Your task to perform on an android device: open app "PlayWell" (install if not already installed), go to login, and select forgot password Image 0: 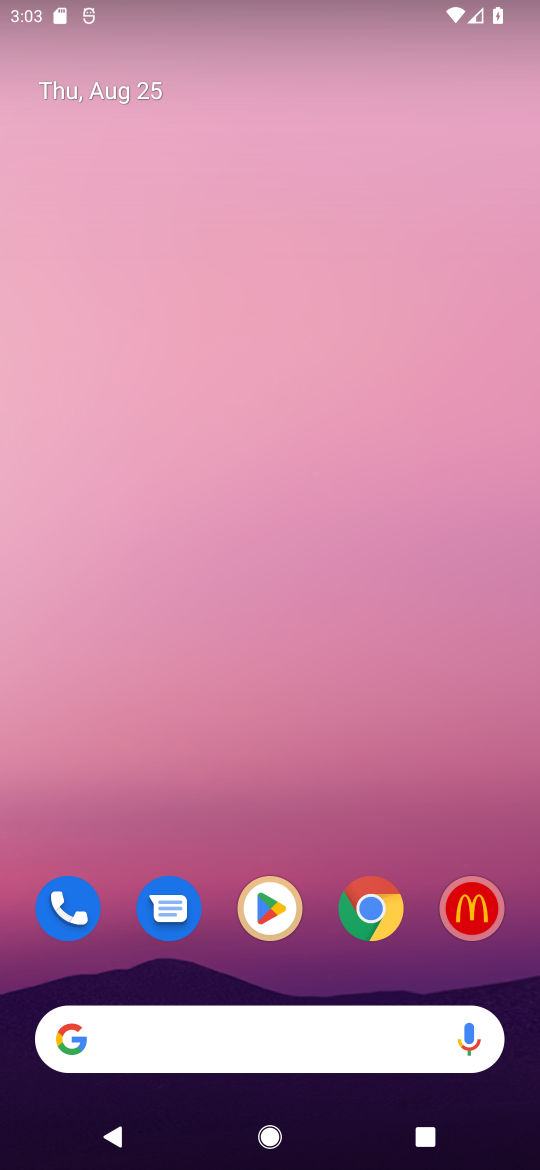
Step 0: click (260, 891)
Your task to perform on an android device: open app "PlayWell" (install if not already installed), go to login, and select forgot password Image 1: 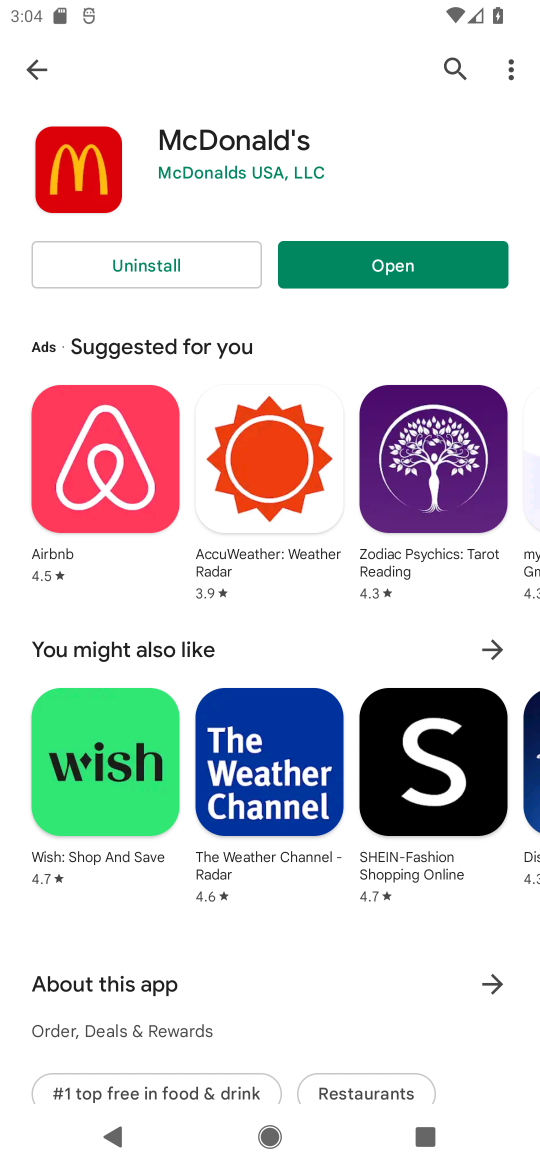
Step 1: click (457, 58)
Your task to perform on an android device: open app "PlayWell" (install if not already installed), go to login, and select forgot password Image 2: 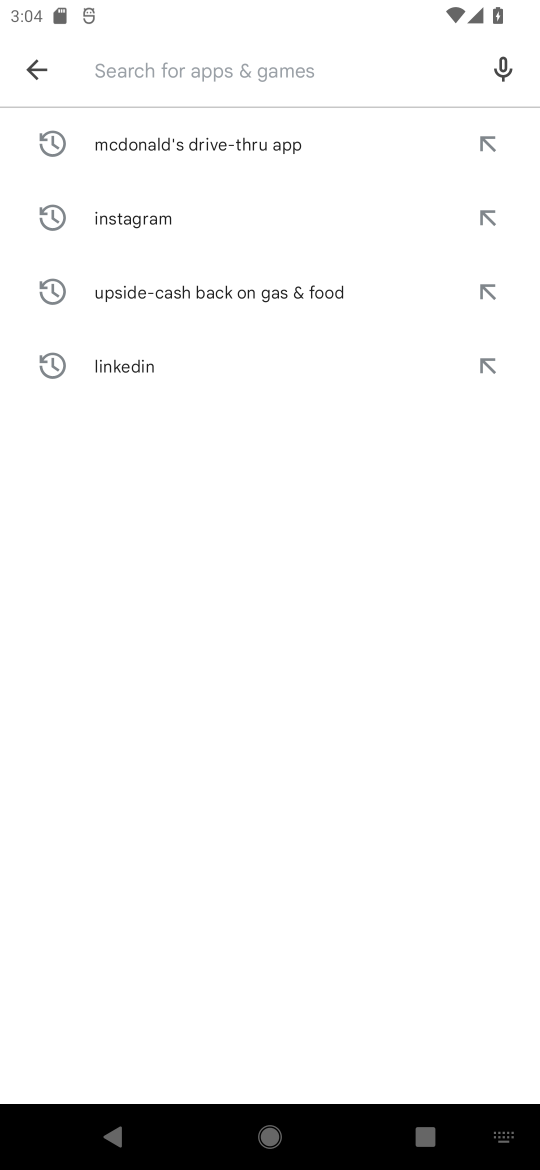
Step 2: type "PlayWell"
Your task to perform on an android device: open app "PlayWell" (install if not already installed), go to login, and select forgot password Image 3: 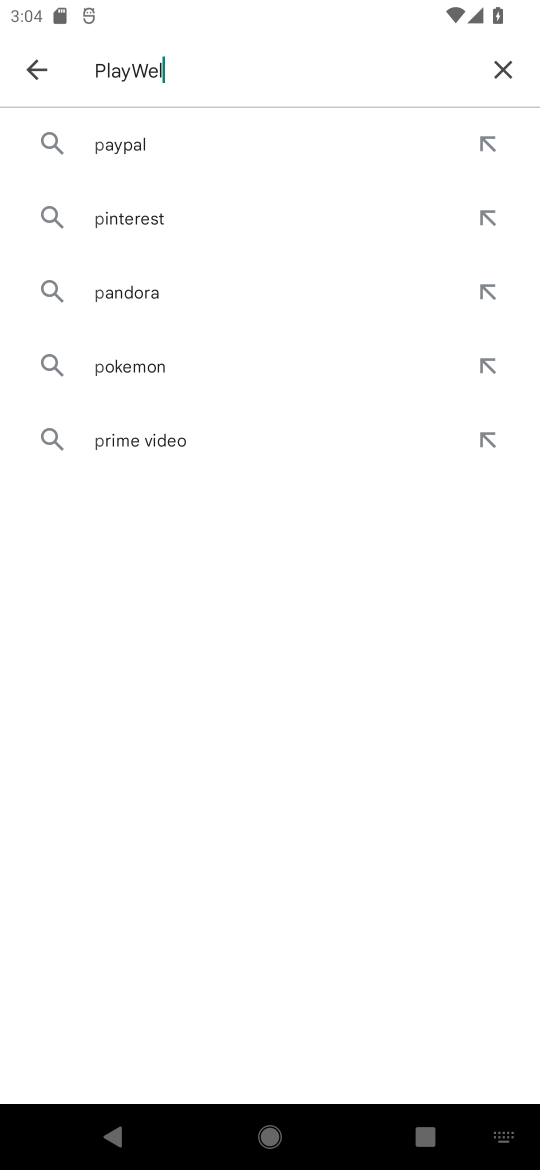
Step 3: type ""
Your task to perform on an android device: open app "PlayWell" (install if not already installed), go to login, and select forgot password Image 4: 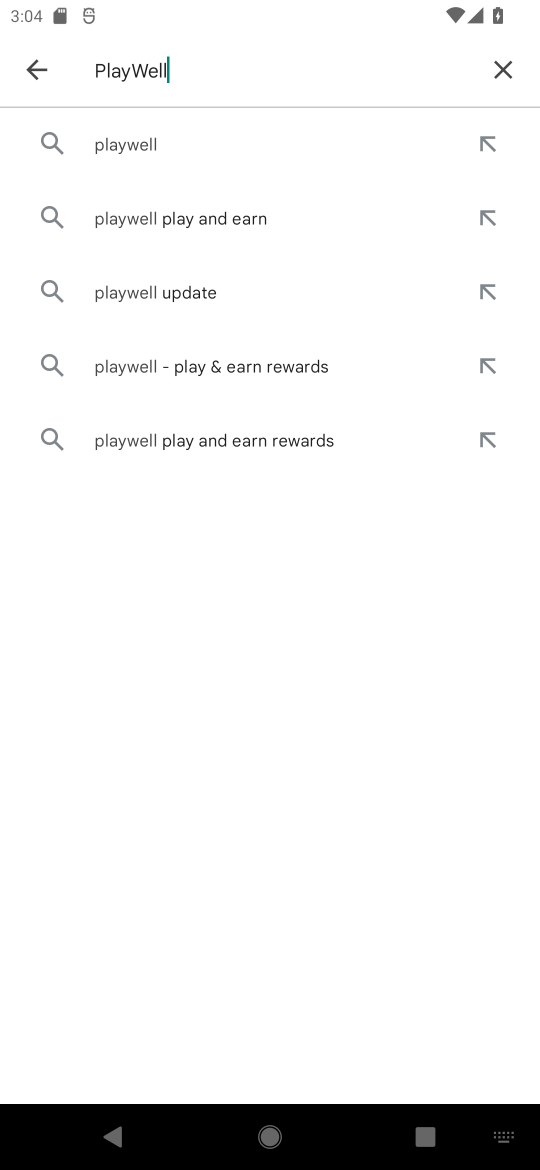
Step 4: click (196, 129)
Your task to perform on an android device: open app "PlayWell" (install if not already installed), go to login, and select forgot password Image 5: 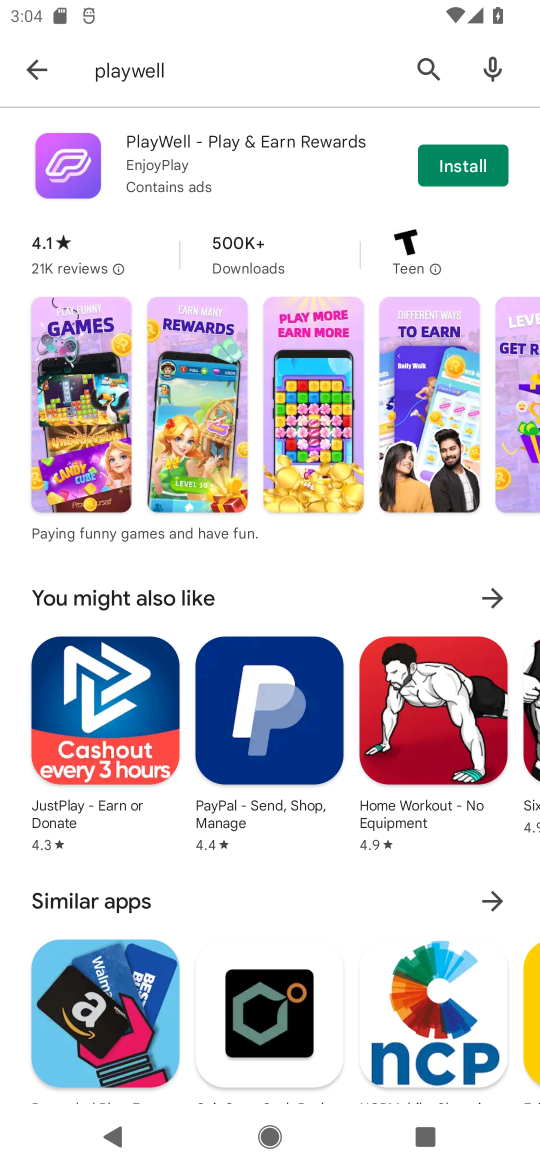
Step 5: click (472, 169)
Your task to perform on an android device: open app "PlayWell" (install if not already installed), go to login, and select forgot password Image 6: 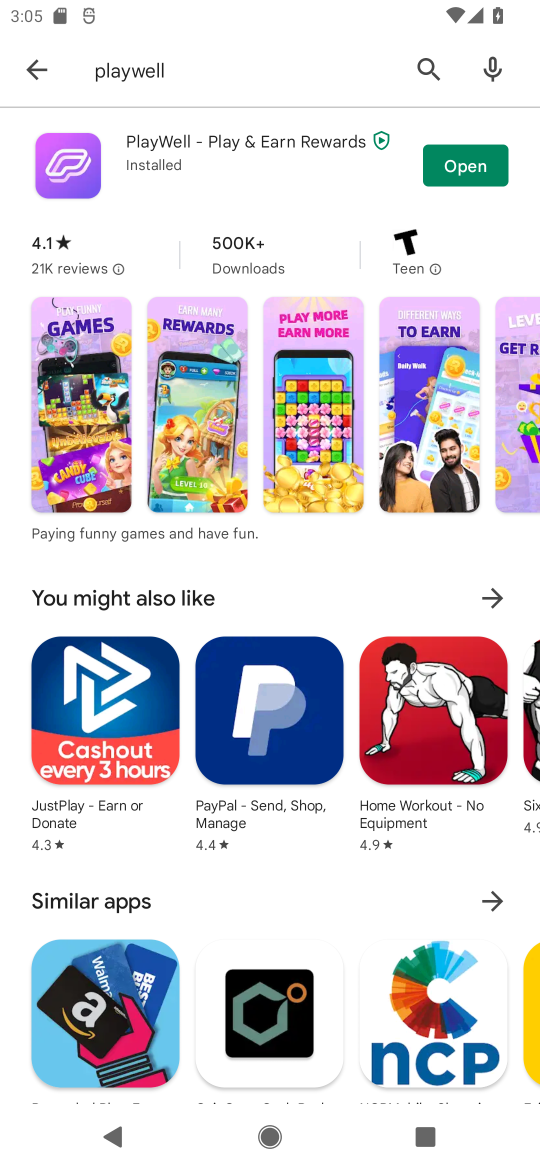
Step 6: click (472, 169)
Your task to perform on an android device: open app "PlayWell" (install if not already installed), go to login, and select forgot password Image 7: 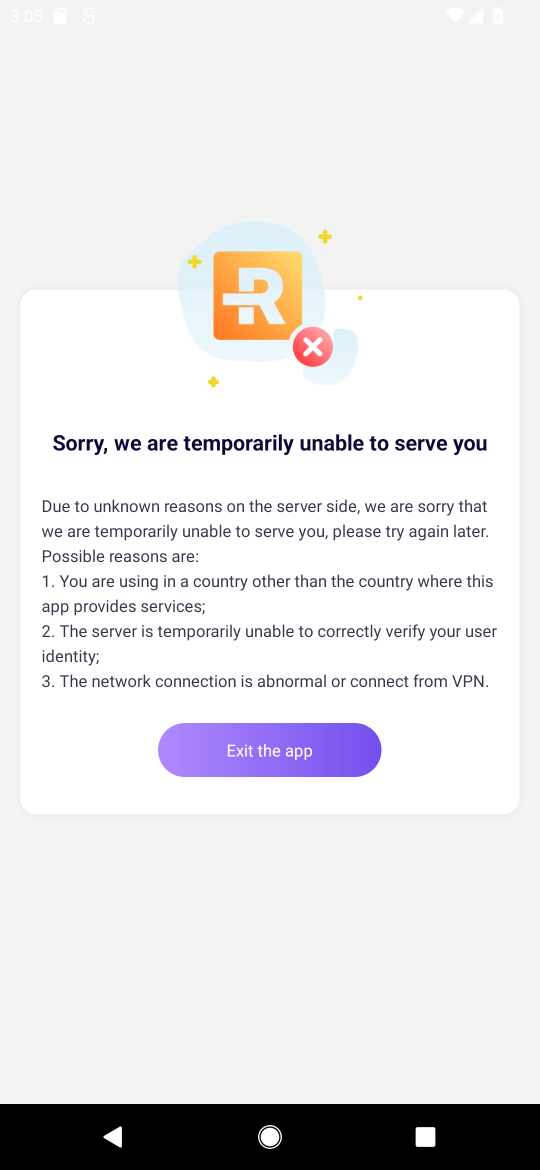
Step 7: task complete